Your task to perform on an android device: turn off data saver in the chrome app Image 0: 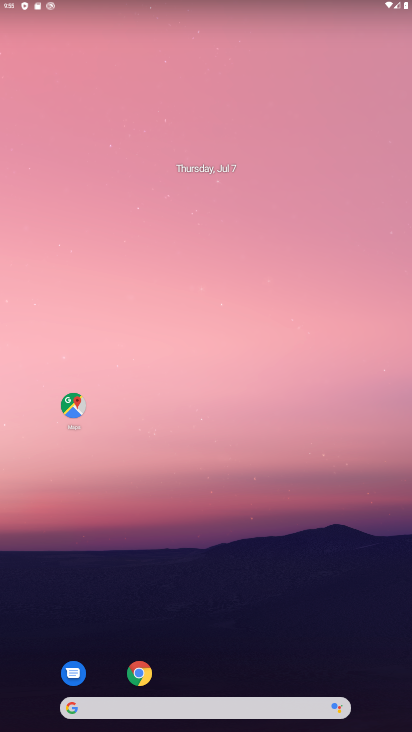
Step 0: drag from (313, 670) to (302, 109)
Your task to perform on an android device: turn off data saver in the chrome app Image 1: 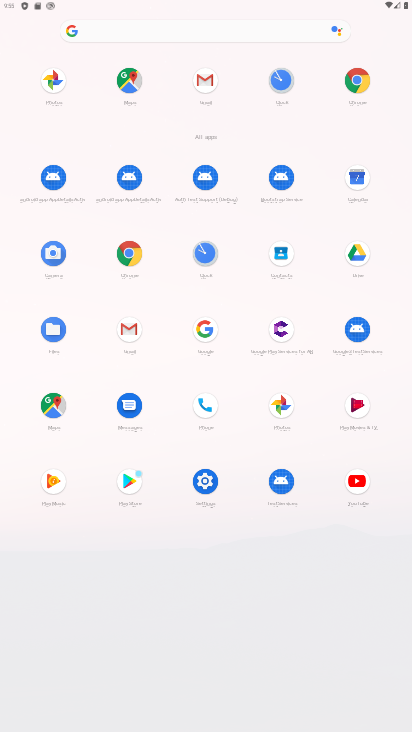
Step 1: click (376, 78)
Your task to perform on an android device: turn off data saver in the chrome app Image 2: 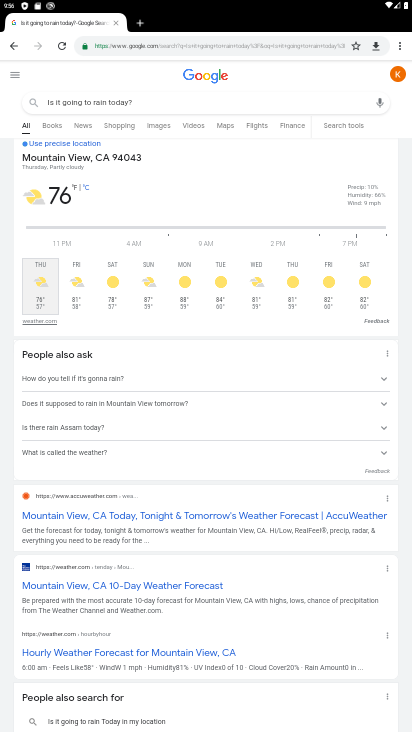
Step 2: drag from (403, 39) to (334, 279)
Your task to perform on an android device: turn off data saver in the chrome app Image 3: 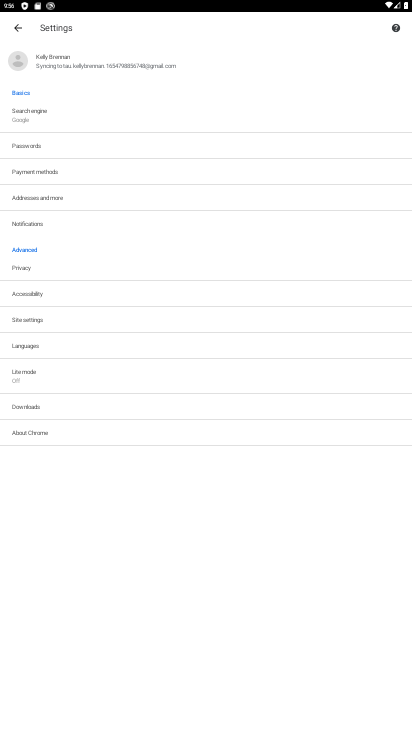
Step 3: click (21, 376)
Your task to perform on an android device: turn off data saver in the chrome app Image 4: 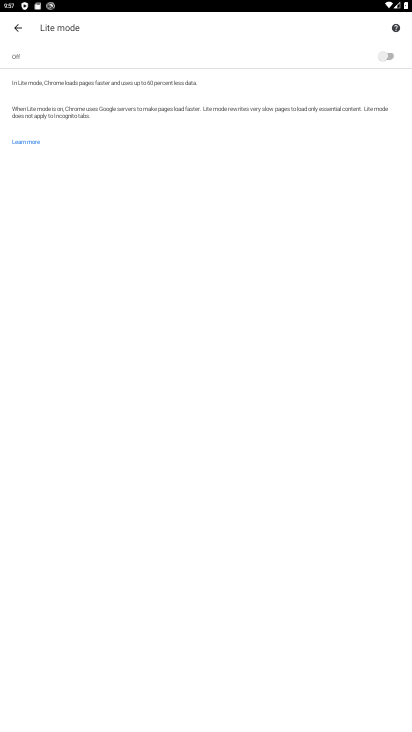
Step 4: click (221, 87)
Your task to perform on an android device: turn off data saver in the chrome app Image 5: 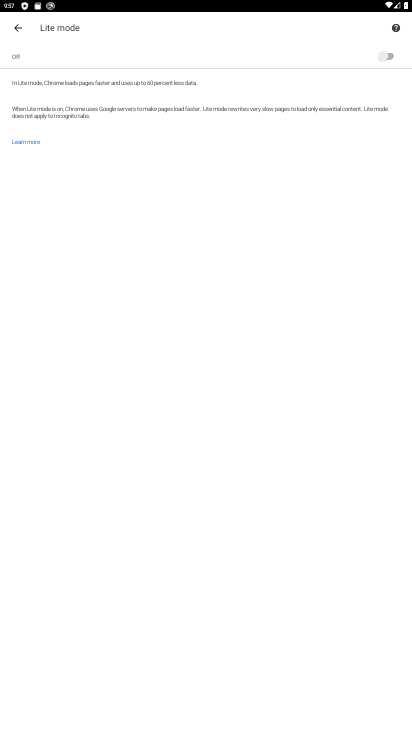
Step 5: task complete